Your task to perform on an android device: turn off picture-in-picture Image 0: 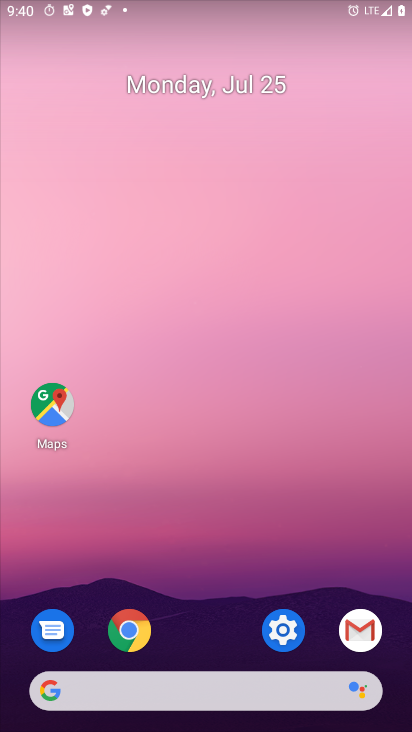
Step 0: drag from (276, 705) to (332, 145)
Your task to perform on an android device: turn off picture-in-picture Image 1: 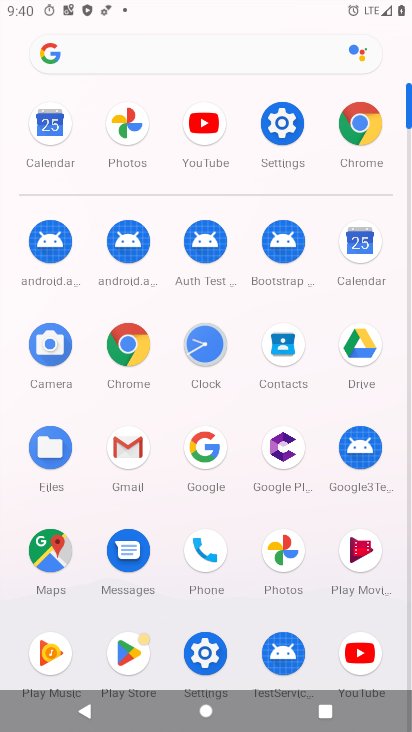
Step 1: click (198, 107)
Your task to perform on an android device: turn off picture-in-picture Image 2: 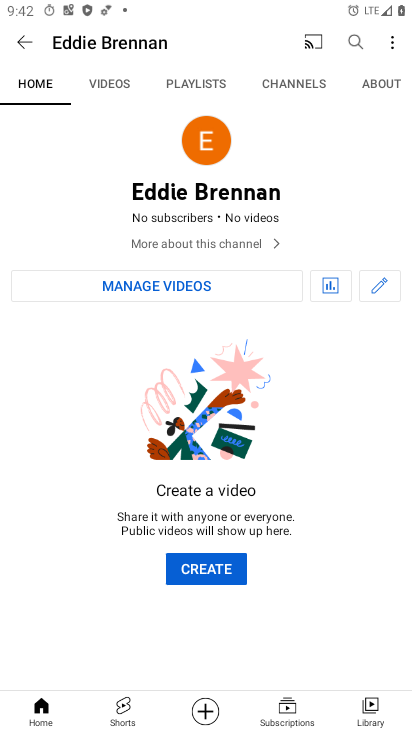
Step 2: click (386, 55)
Your task to perform on an android device: turn off picture-in-picture Image 3: 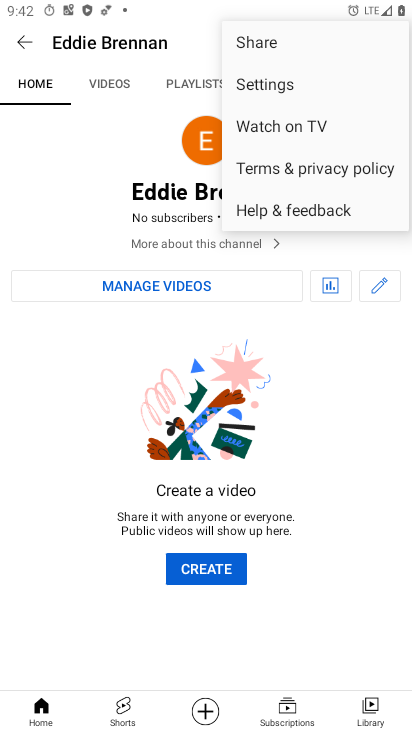
Step 3: click (272, 89)
Your task to perform on an android device: turn off picture-in-picture Image 4: 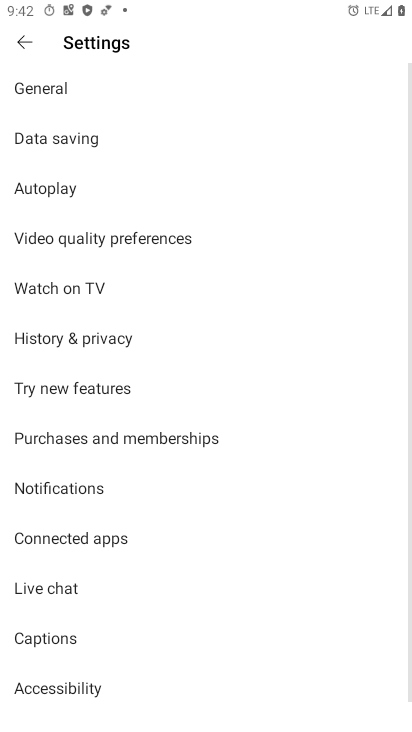
Step 4: click (52, 93)
Your task to perform on an android device: turn off picture-in-picture Image 5: 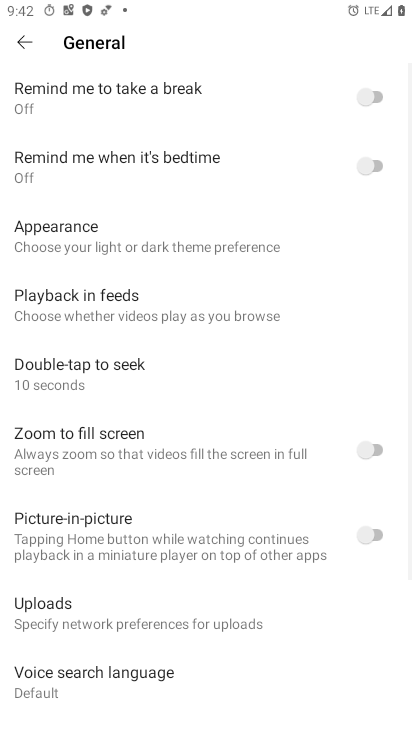
Step 5: click (270, 543)
Your task to perform on an android device: turn off picture-in-picture Image 6: 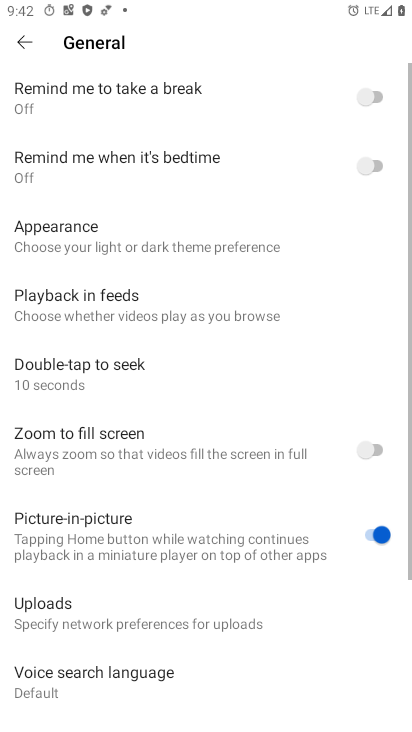
Step 6: click (271, 543)
Your task to perform on an android device: turn off picture-in-picture Image 7: 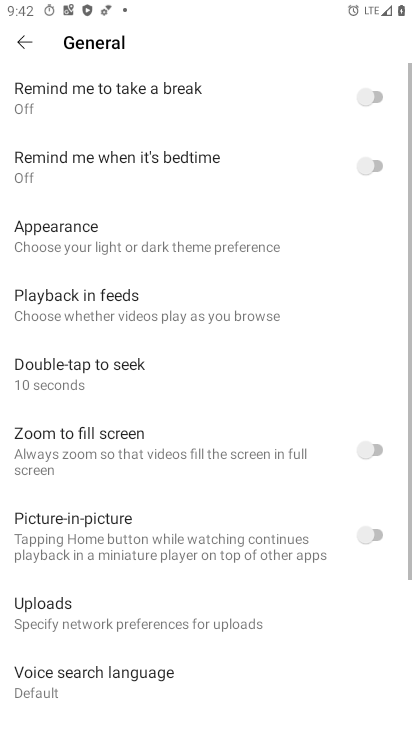
Step 7: task complete